Your task to perform on an android device: turn off notifications settings in the gmail app Image 0: 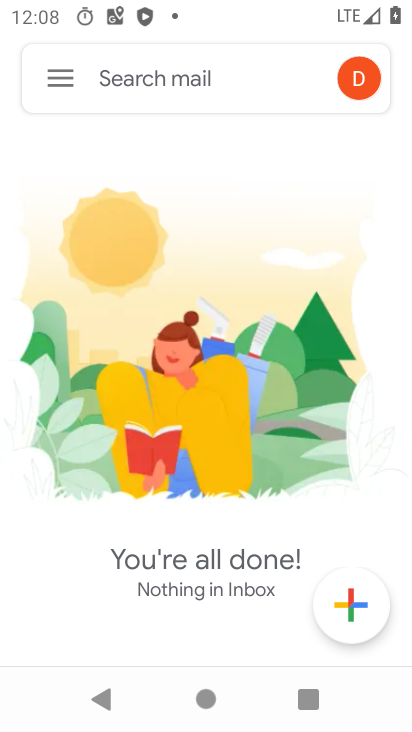
Step 0: press home button
Your task to perform on an android device: turn off notifications settings in the gmail app Image 1: 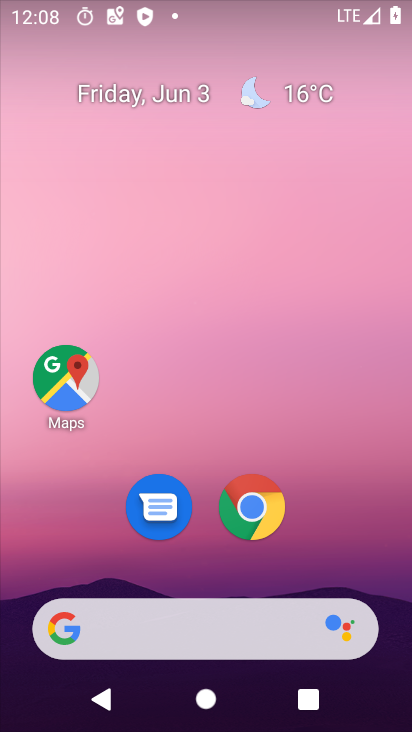
Step 1: click (400, 622)
Your task to perform on an android device: turn off notifications settings in the gmail app Image 2: 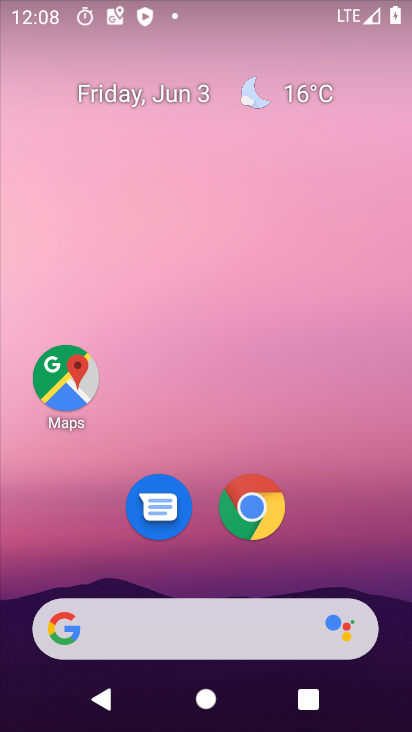
Step 2: drag from (381, 437) to (316, 99)
Your task to perform on an android device: turn off notifications settings in the gmail app Image 3: 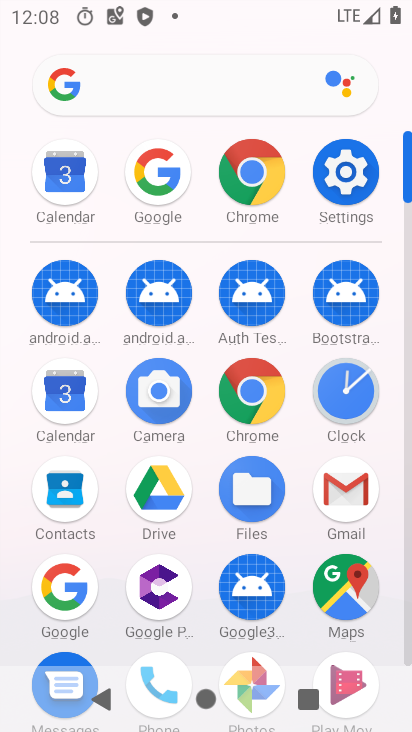
Step 3: click (357, 485)
Your task to perform on an android device: turn off notifications settings in the gmail app Image 4: 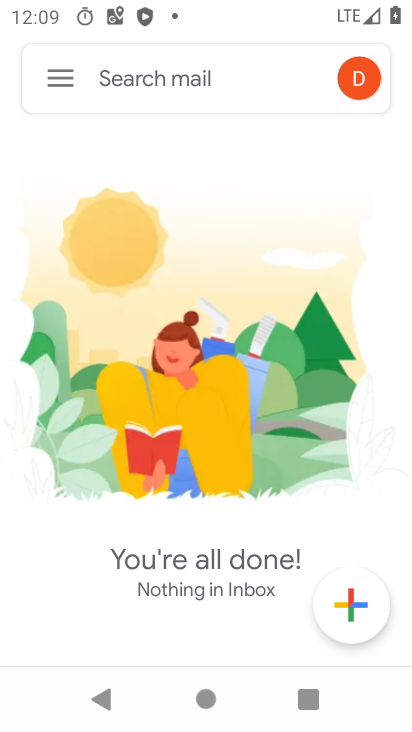
Step 4: click (53, 74)
Your task to perform on an android device: turn off notifications settings in the gmail app Image 5: 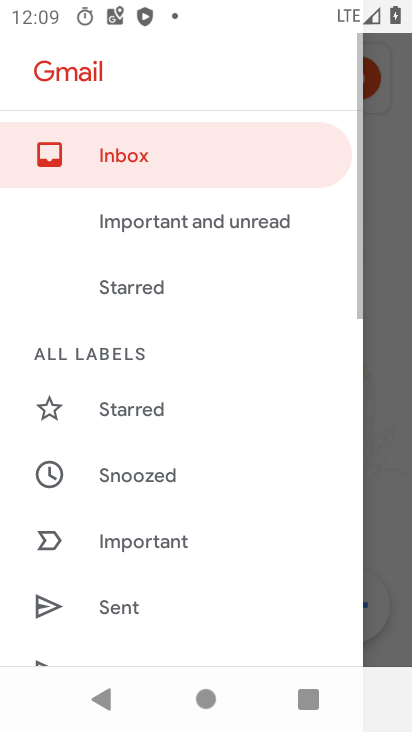
Step 5: drag from (150, 570) to (206, 114)
Your task to perform on an android device: turn off notifications settings in the gmail app Image 6: 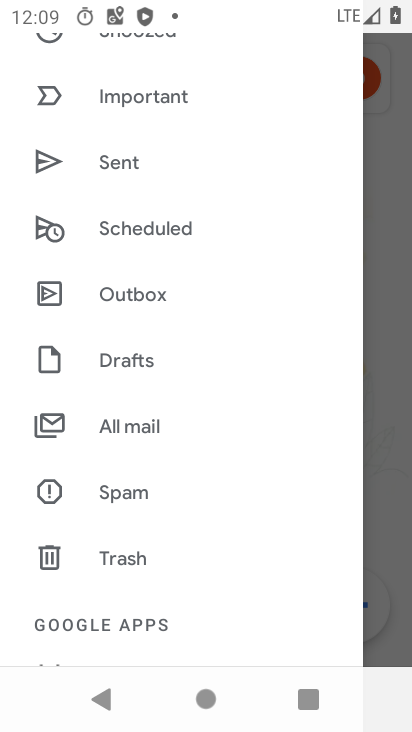
Step 6: drag from (114, 628) to (189, 186)
Your task to perform on an android device: turn off notifications settings in the gmail app Image 7: 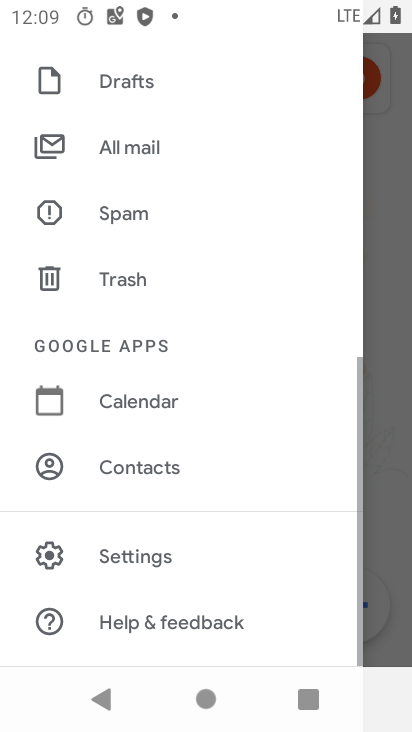
Step 7: click (155, 549)
Your task to perform on an android device: turn off notifications settings in the gmail app Image 8: 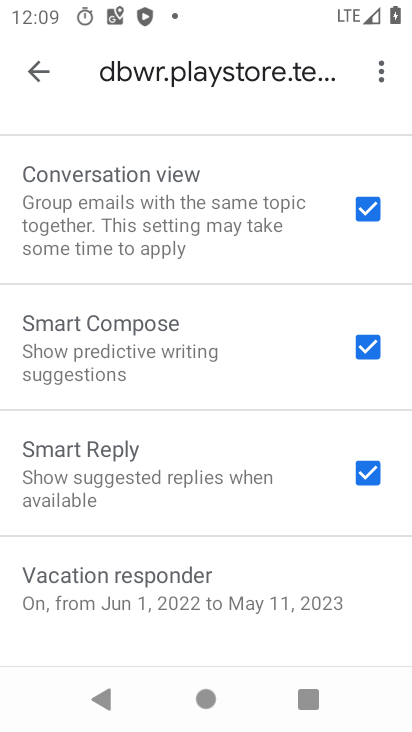
Step 8: drag from (225, 235) to (140, 728)
Your task to perform on an android device: turn off notifications settings in the gmail app Image 9: 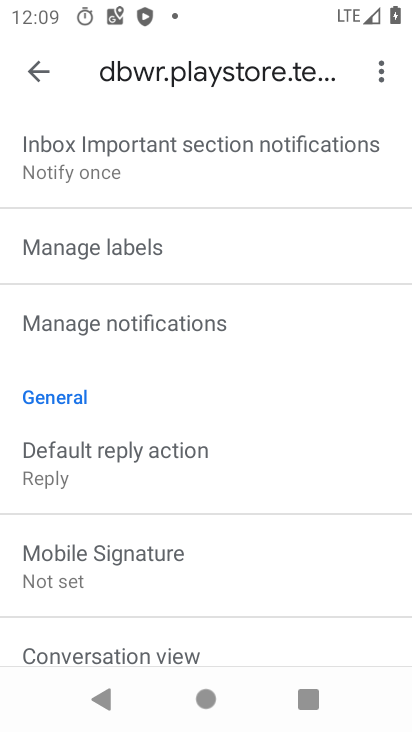
Step 9: drag from (164, 238) to (151, 662)
Your task to perform on an android device: turn off notifications settings in the gmail app Image 10: 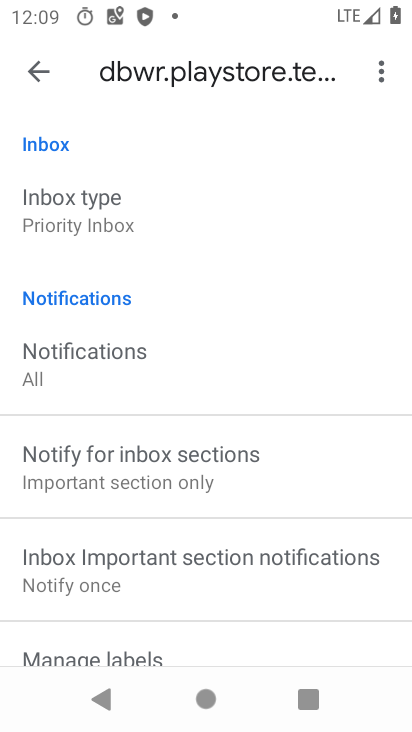
Step 10: click (108, 365)
Your task to perform on an android device: turn off notifications settings in the gmail app Image 11: 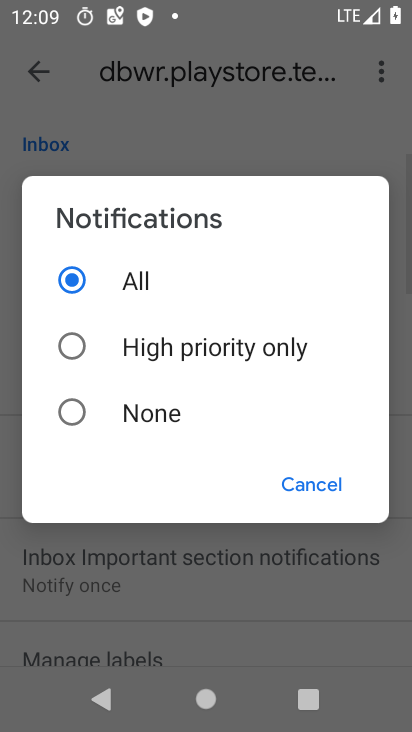
Step 11: click (60, 415)
Your task to perform on an android device: turn off notifications settings in the gmail app Image 12: 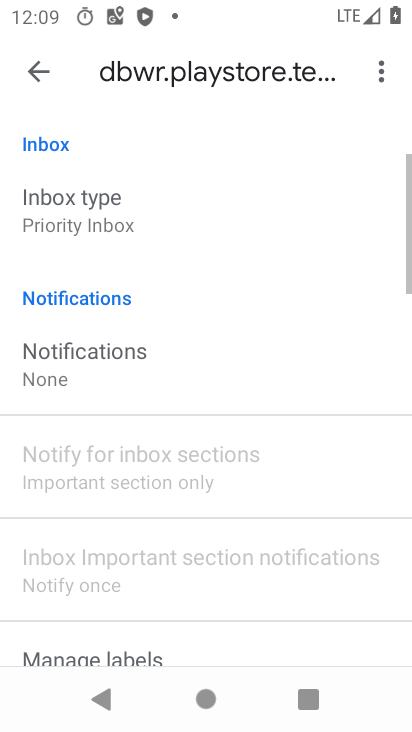
Step 12: task complete